Your task to perform on an android device: open chrome privacy settings Image 0: 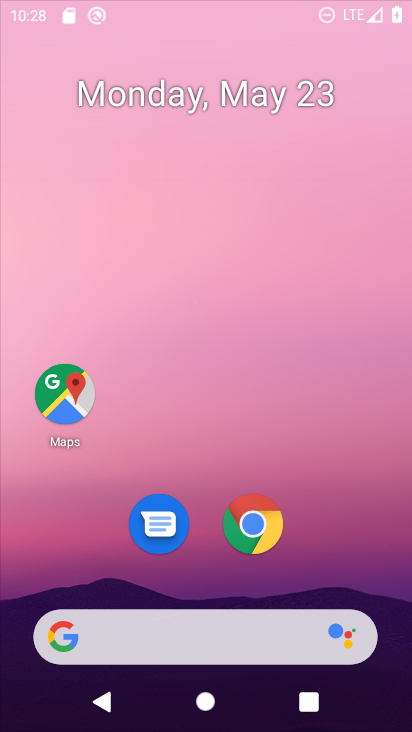
Step 0: drag from (332, 521) to (314, 130)
Your task to perform on an android device: open chrome privacy settings Image 1: 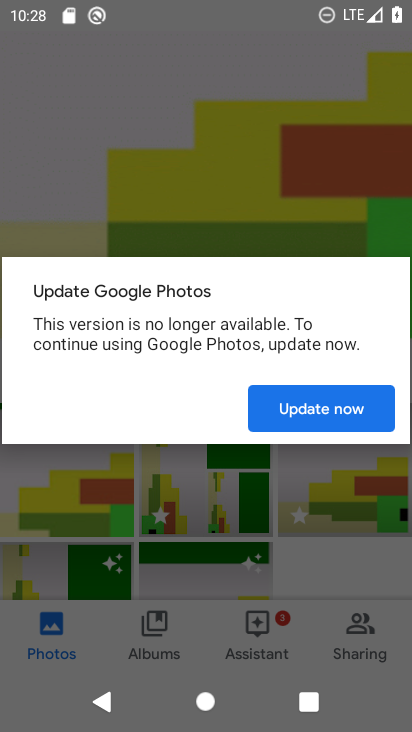
Step 1: press home button
Your task to perform on an android device: open chrome privacy settings Image 2: 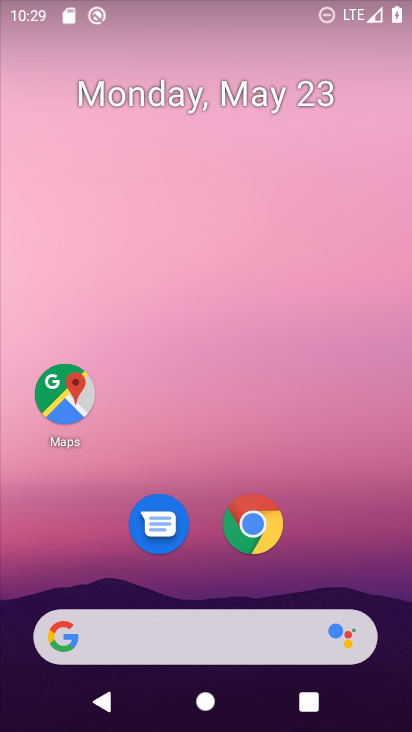
Step 2: click (268, 514)
Your task to perform on an android device: open chrome privacy settings Image 3: 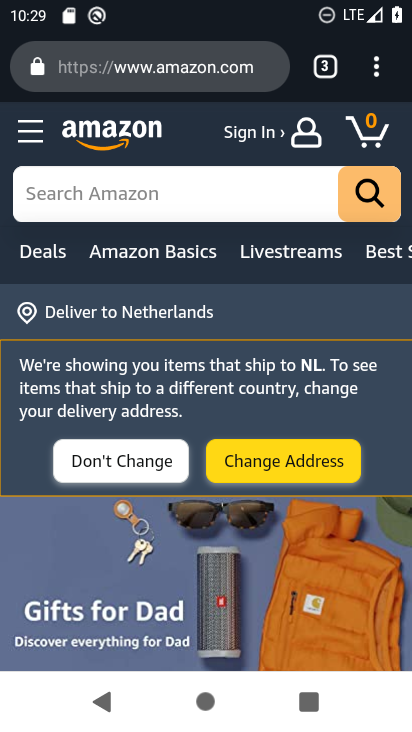
Step 3: click (370, 65)
Your task to perform on an android device: open chrome privacy settings Image 4: 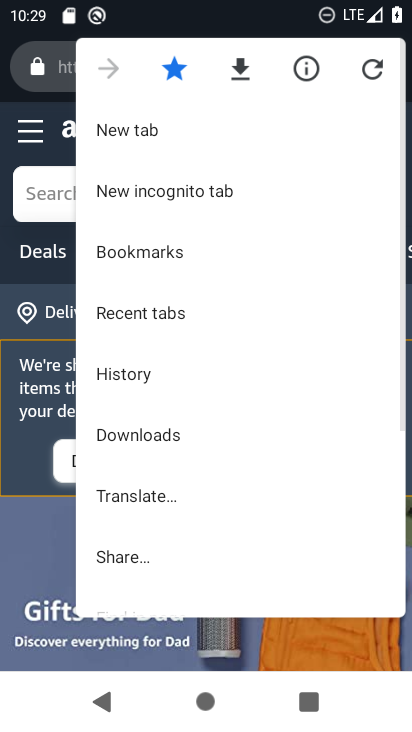
Step 4: drag from (240, 479) to (276, 212)
Your task to perform on an android device: open chrome privacy settings Image 5: 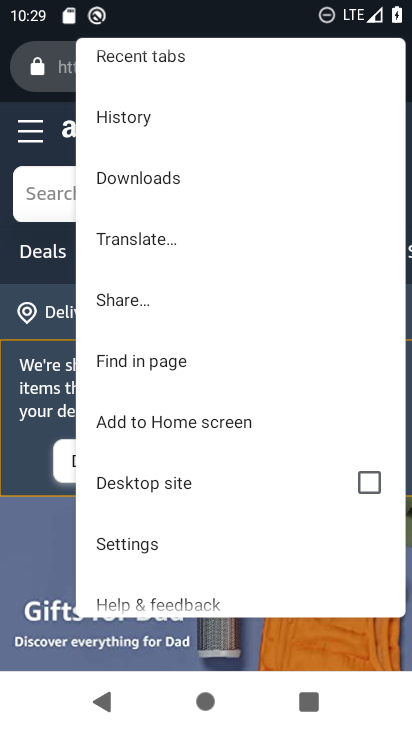
Step 5: click (190, 535)
Your task to perform on an android device: open chrome privacy settings Image 6: 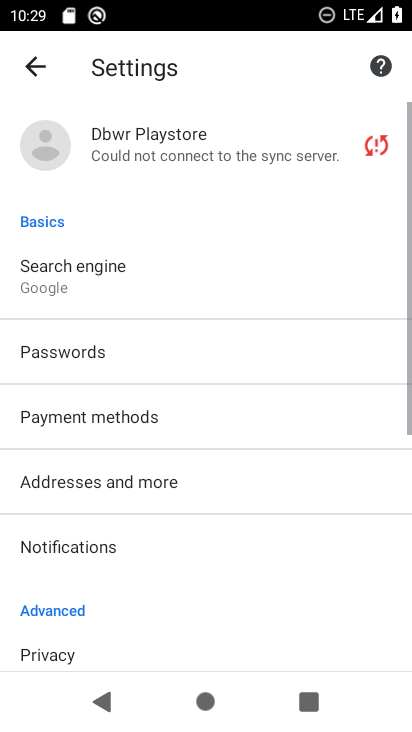
Step 6: drag from (190, 533) to (217, 338)
Your task to perform on an android device: open chrome privacy settings Image 7: 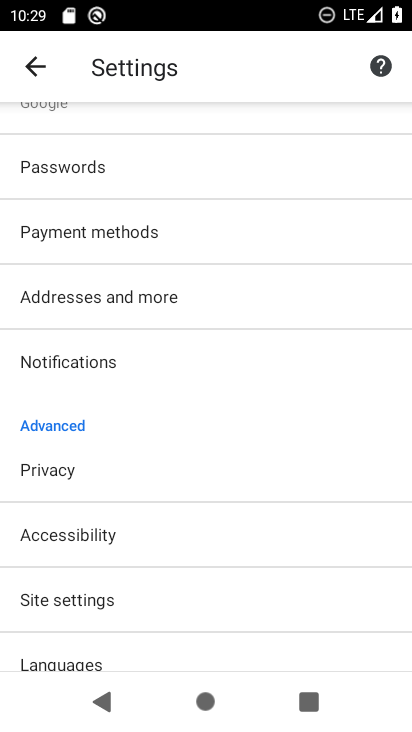
Step 7: click (159, 463)
Your task to perform on an android device: open chrome privacy settings Image 8: 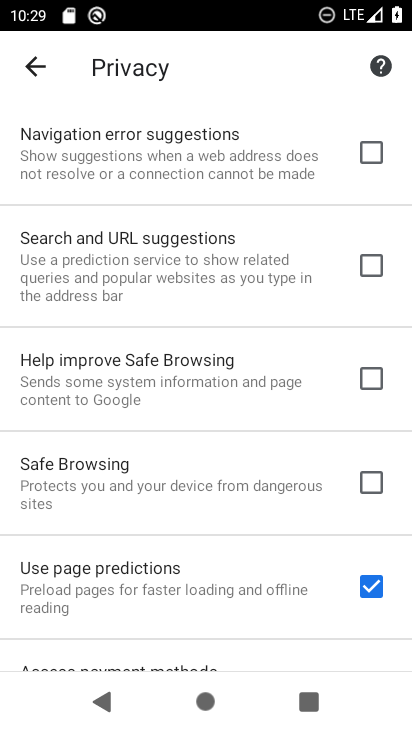
Step 8: task complete